Your task to perform on an android device: When is my next appointment? Image 0: 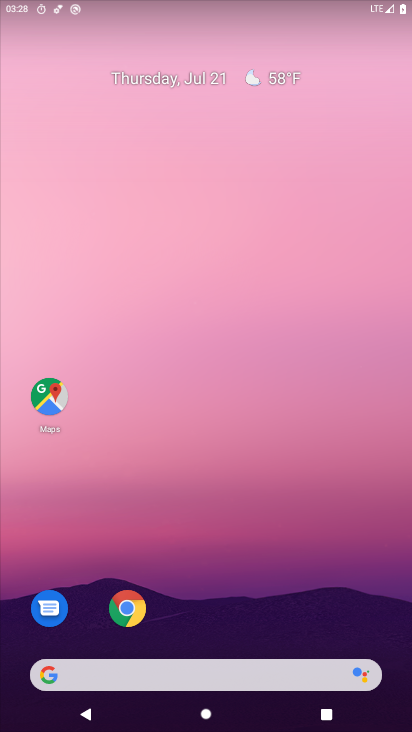
Step 0: drag from (202, 633) to (232, 91)
Your task to perform on an android device: When is my next appointment? Image 1: 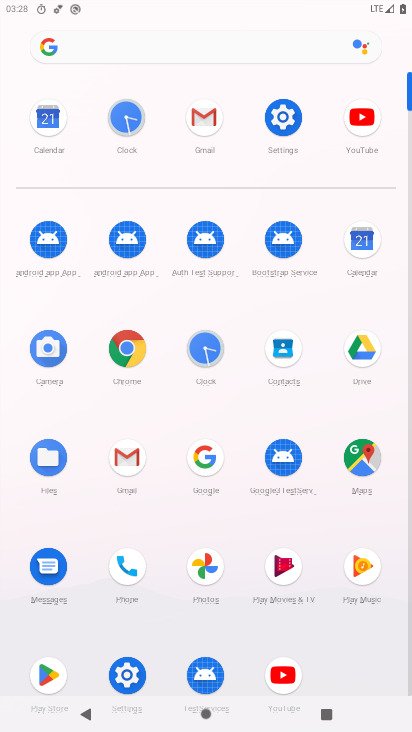
Step 1: click (359, 235)
Your task to perform on an android device: When is my next appointment? Image 2: 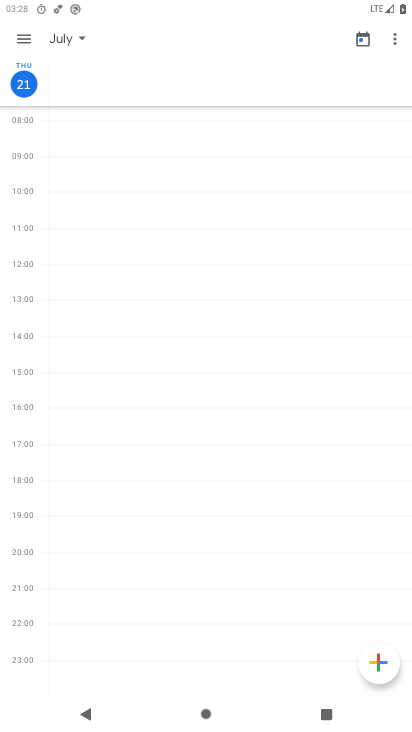
Step 2: click (31, 90)
Your task to perform on an android device: When is my next appointment? Image 3: 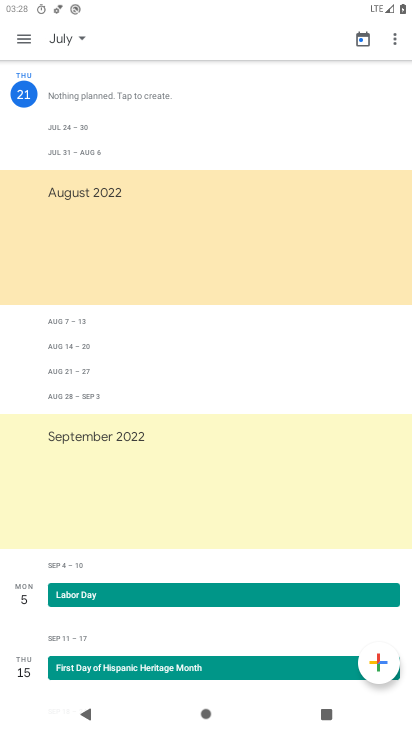
Step 3: task complete